Your task to perform on an android device: Go to Yahoo.com Image 0: 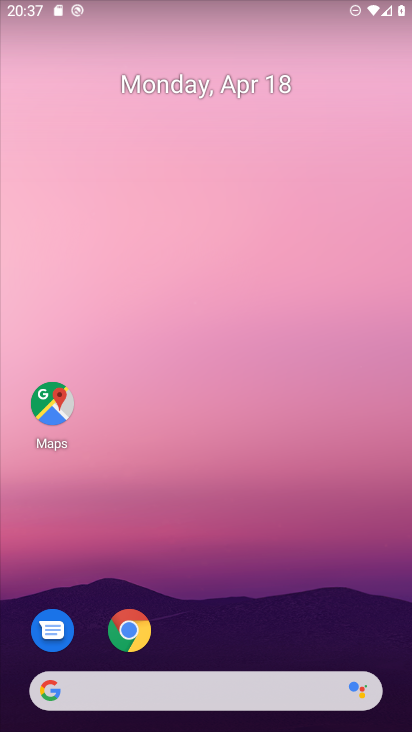
Step 0: drag from (269, 600) to (347, 220)
Your task to perform on an android device: Go to Yahoo.com Image 1: 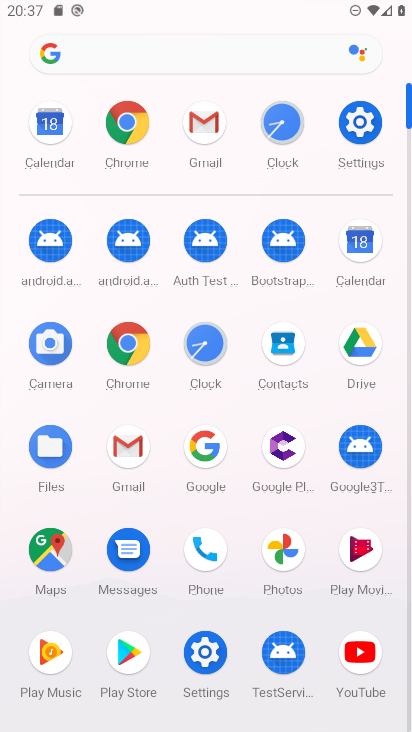
Step 1: click (135, 139)
Your task to perform on an android device: Go to Yahoo.com Image 2: 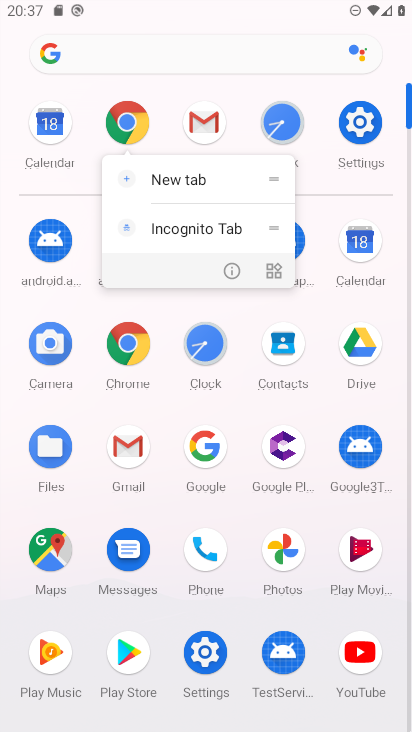
Step 2: click (124, 124)
Your task to perform on an android device: Go to Yahoo.com Image 3: 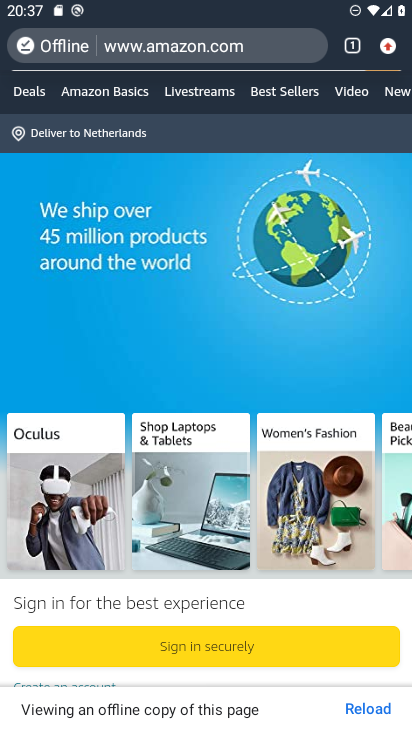
Step 3: click (194, 41)
Your task to perform on an android device: Go to Yahoo.com Image 4: 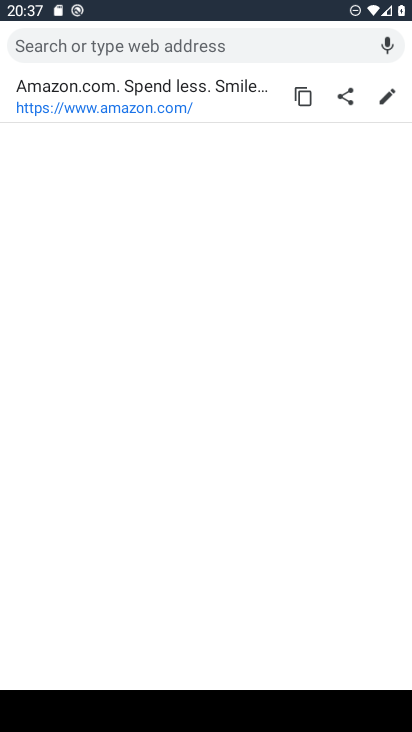
Step 4: type "yahoo.com"
Your task to perform on an android device: Go to Yahoo.com Image 5: 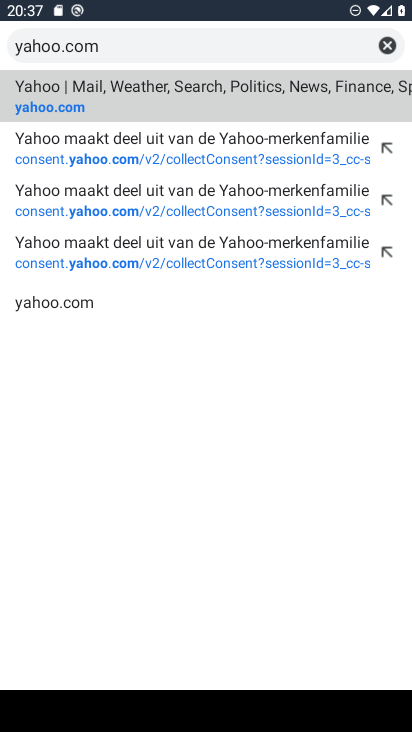
Step 5: click (97, 294)
Your task to perform on an android device: Go to Yahoo.com Image 6: 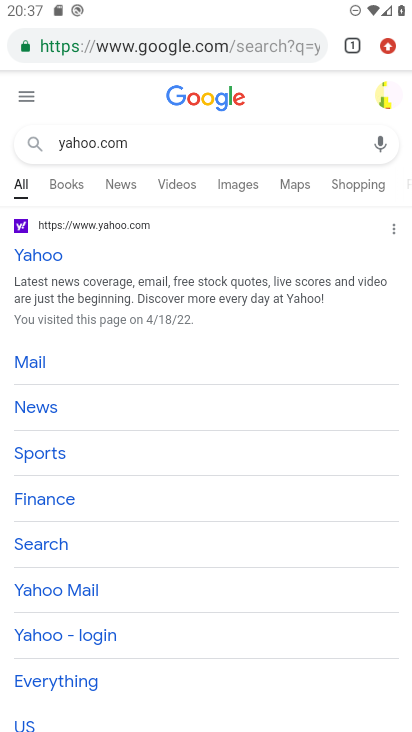
Step 6: task complete